Your task to perform on an android device: Search for "dell xps" on bestbuy, select the first entry, and add it to the cart. Image 0: 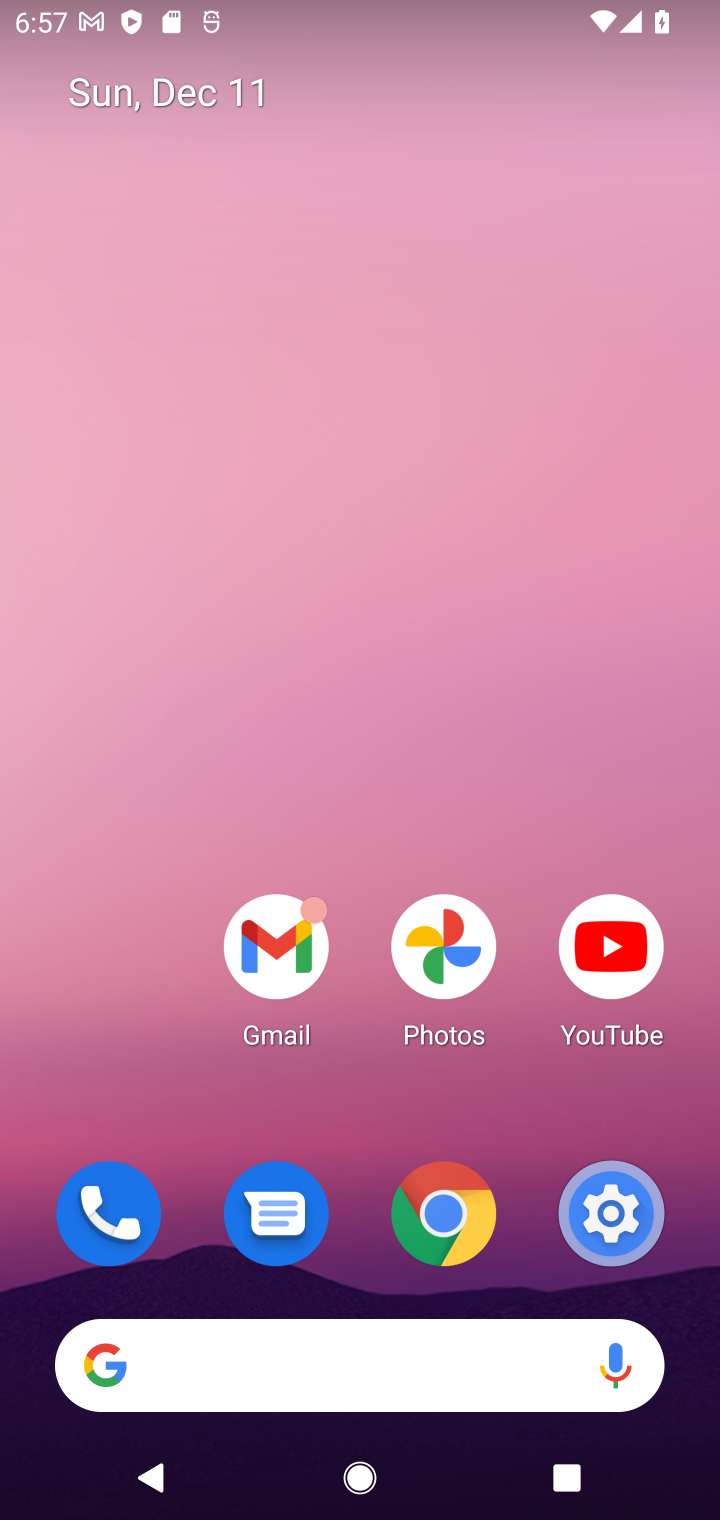
Step 0: click (396, 1368)
Your task to perform on an android device: Search for "dell xps" on bestbuy, select the first entry, and add it to the cart. Image 1: 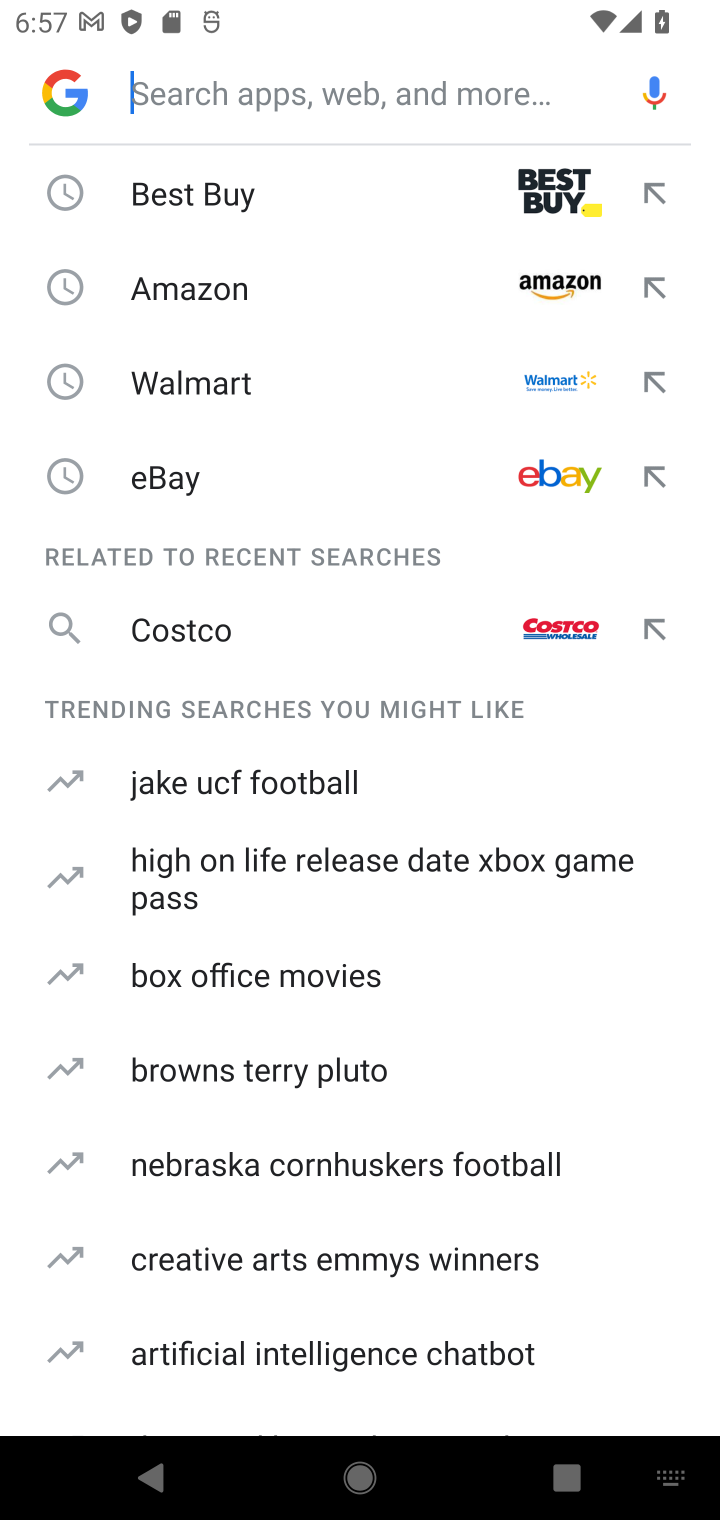
Step 1: type "bestbuy"
Your task to perform on an android device: Search for "dell xps" on bestbuy, select the first entry, and add it to the cart. Image 2: 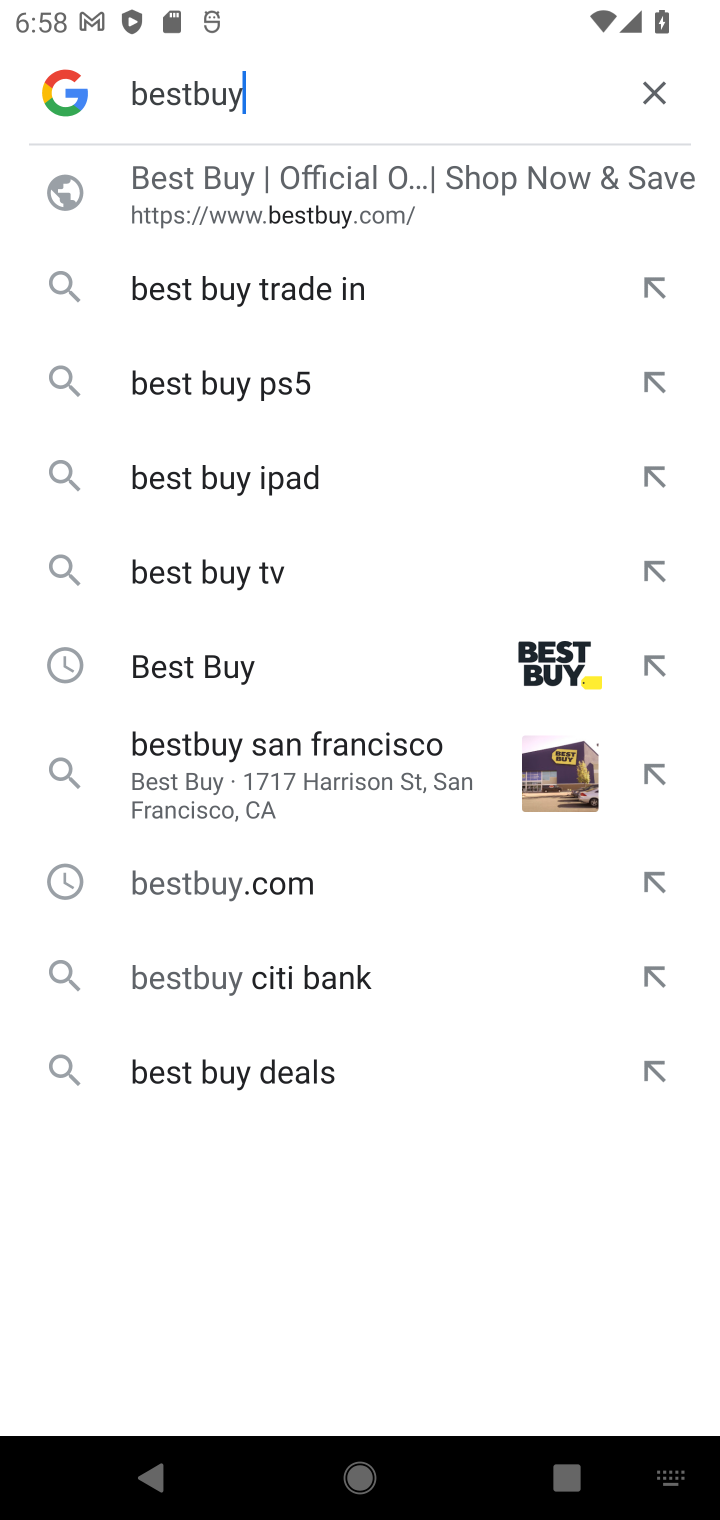
Step 2: click (140, 206)
Your task to perform on an android device: Search for "dell xps" on bestbuy, select the first entry, and add it to the cart. Image 3: 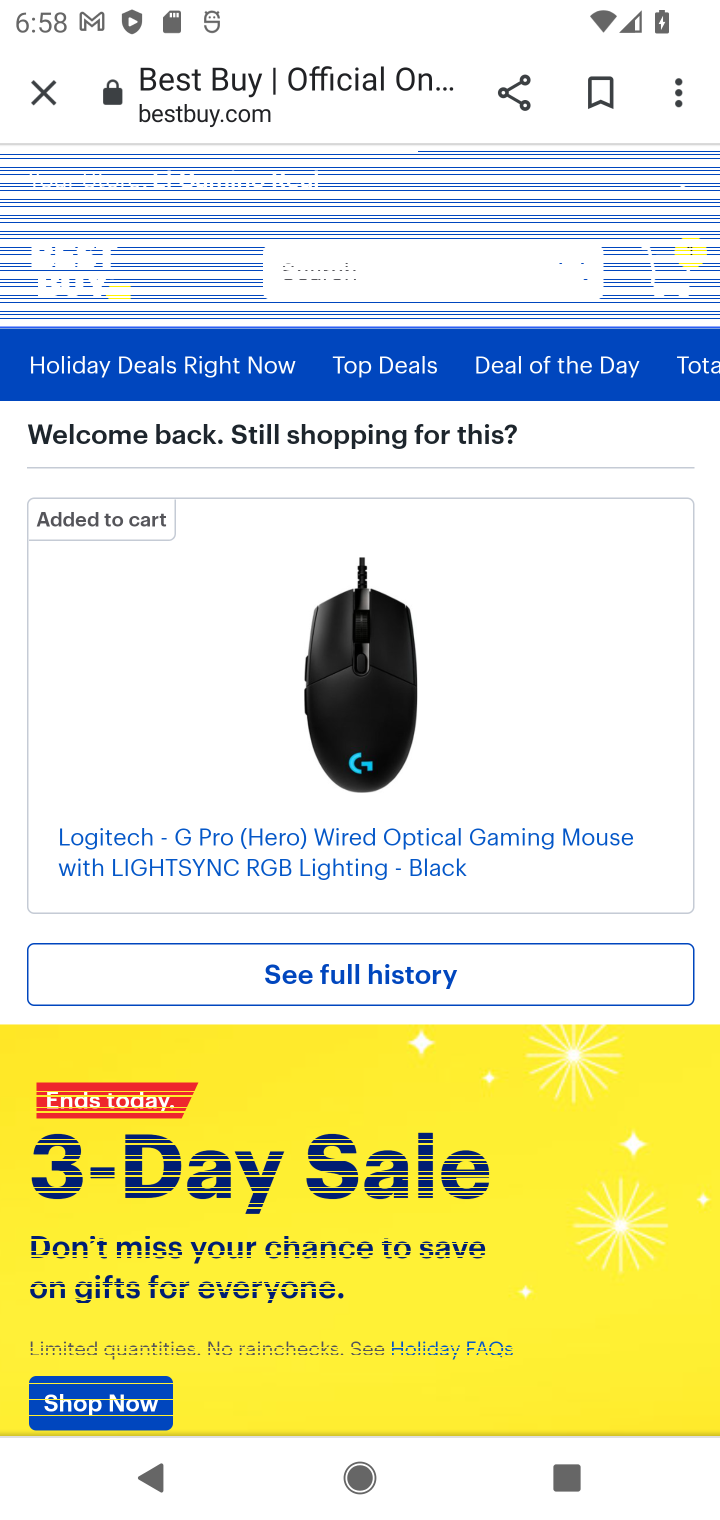
Step 3: click (436, 284)
Your task to perform on an android device: Search for "dell xps" on bestbuy, select the first entry, and add it to the cart. Image 4: 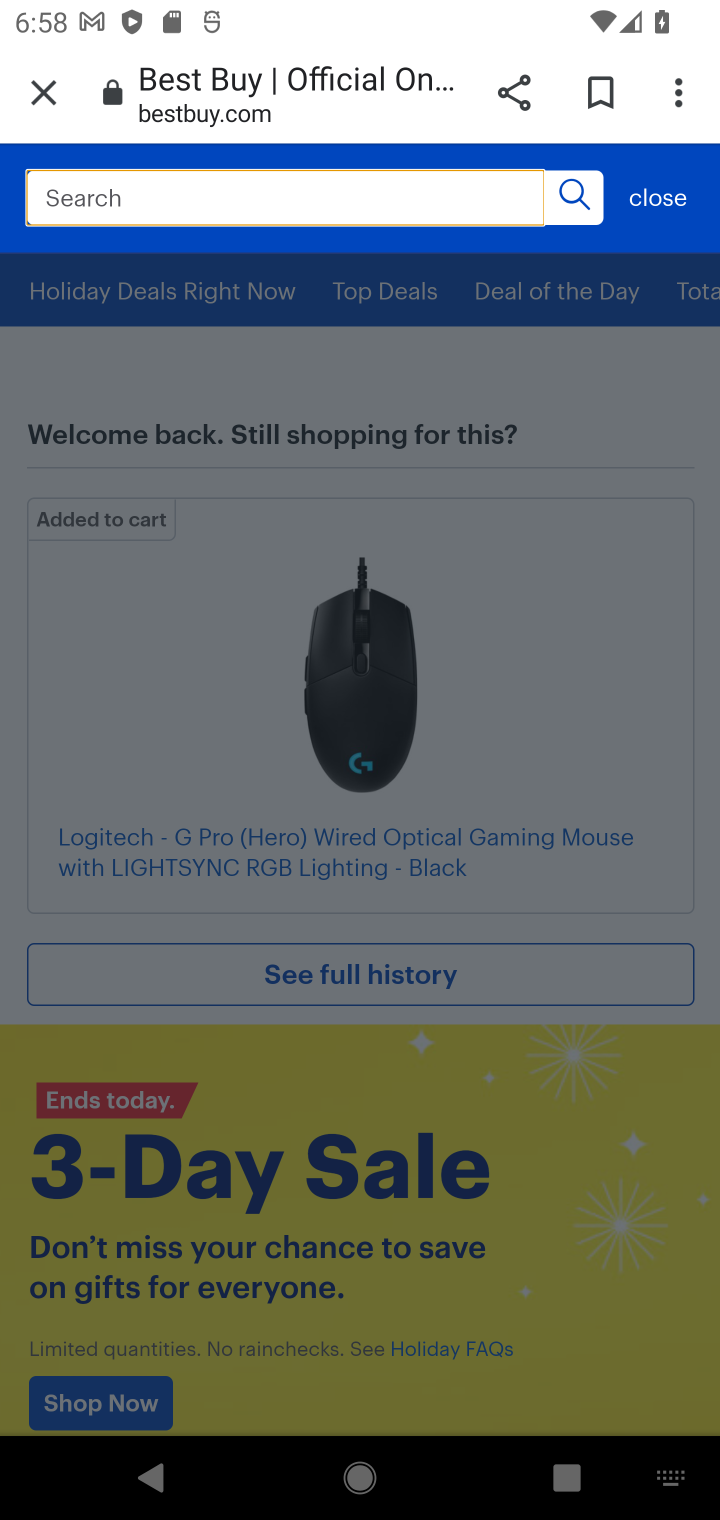
Step 4: type "dell xps"
Your task to perform on an android device: Search for "dell xps" on bestbuy, select the first entry, and add it to the cart. Image 5: 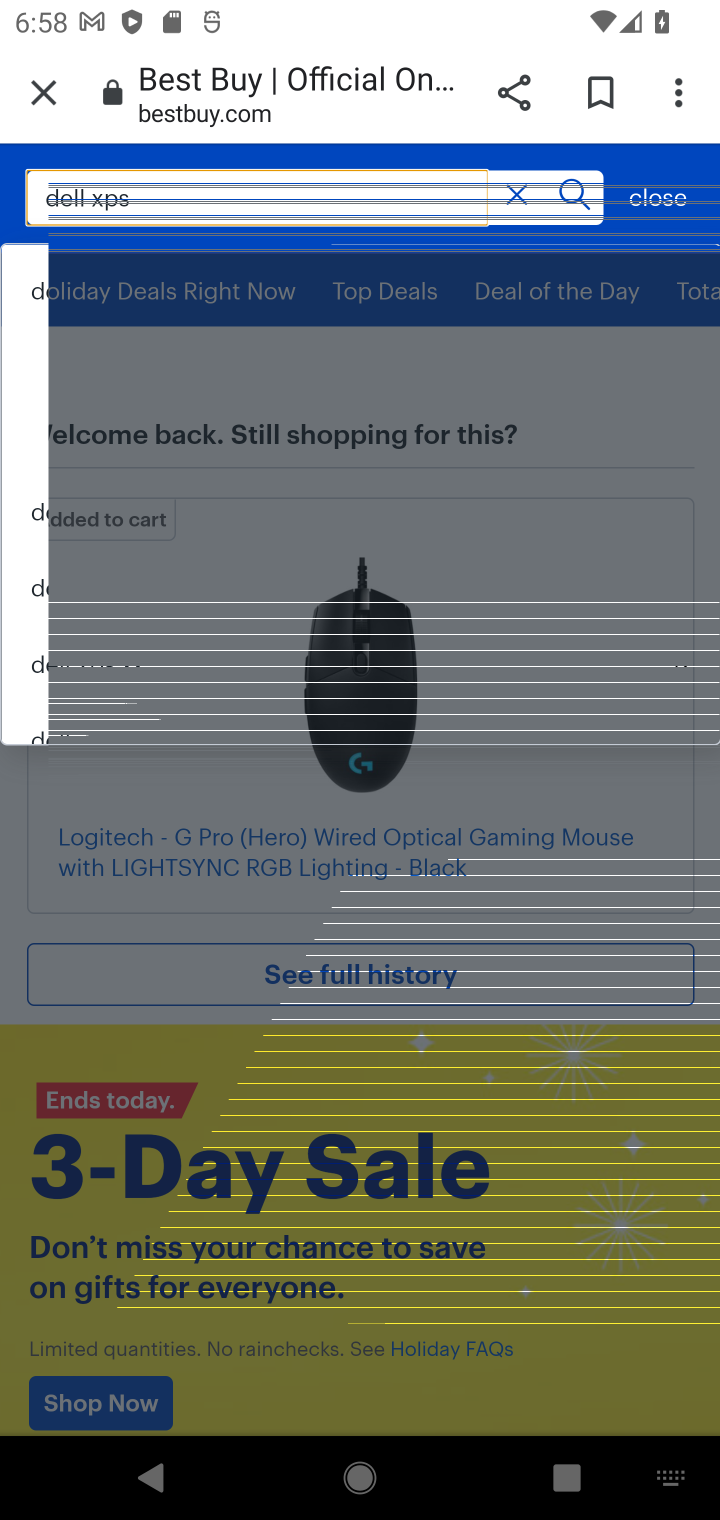
Step 5: click (38, 298)
Your task to perform on an android device: Search for "dell xps" on bestbuy, select the first entry, and add it to the cart. Image 6: 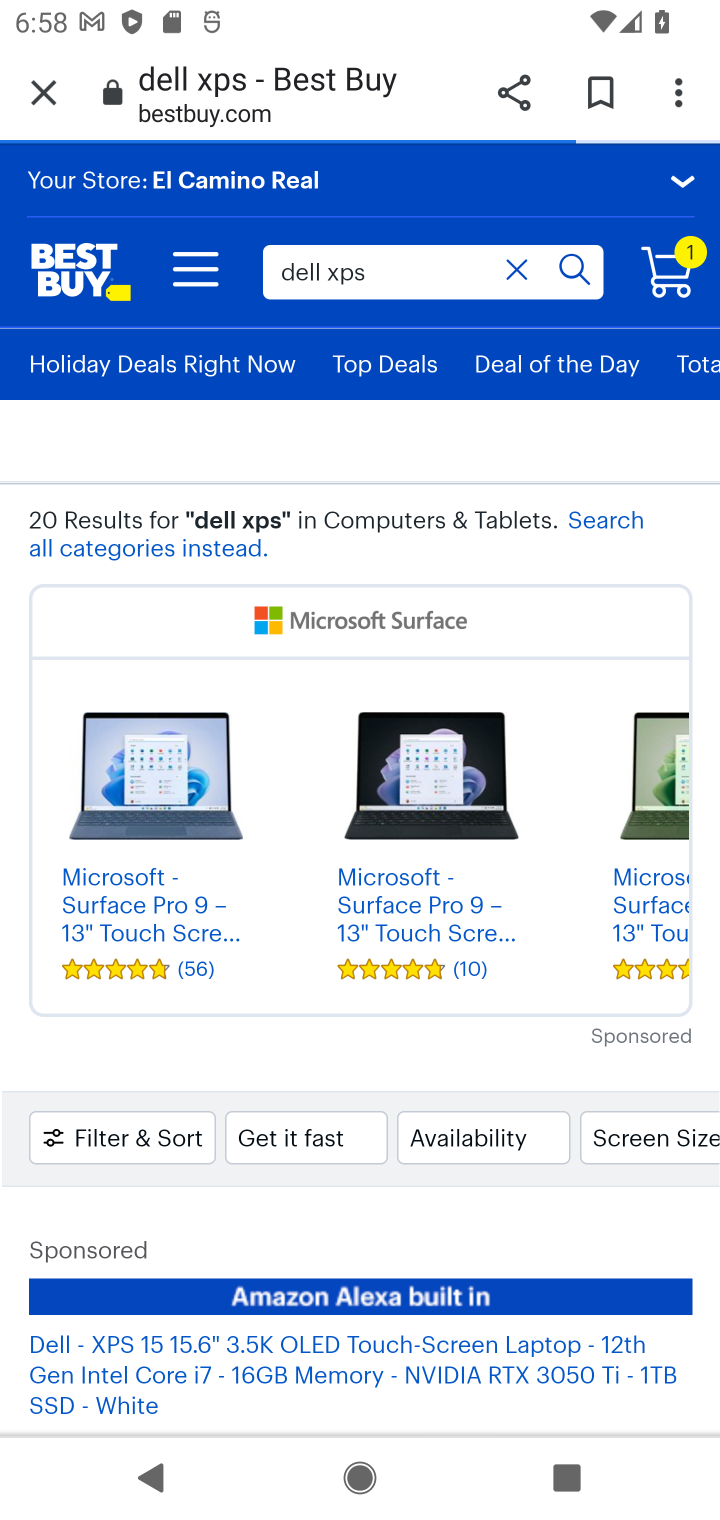
Step 6: click (146, 843)
Your task to perform on an android device: Search for "dell xps" on bestbuy, select the first entry, and add it to the cart. Image 7: 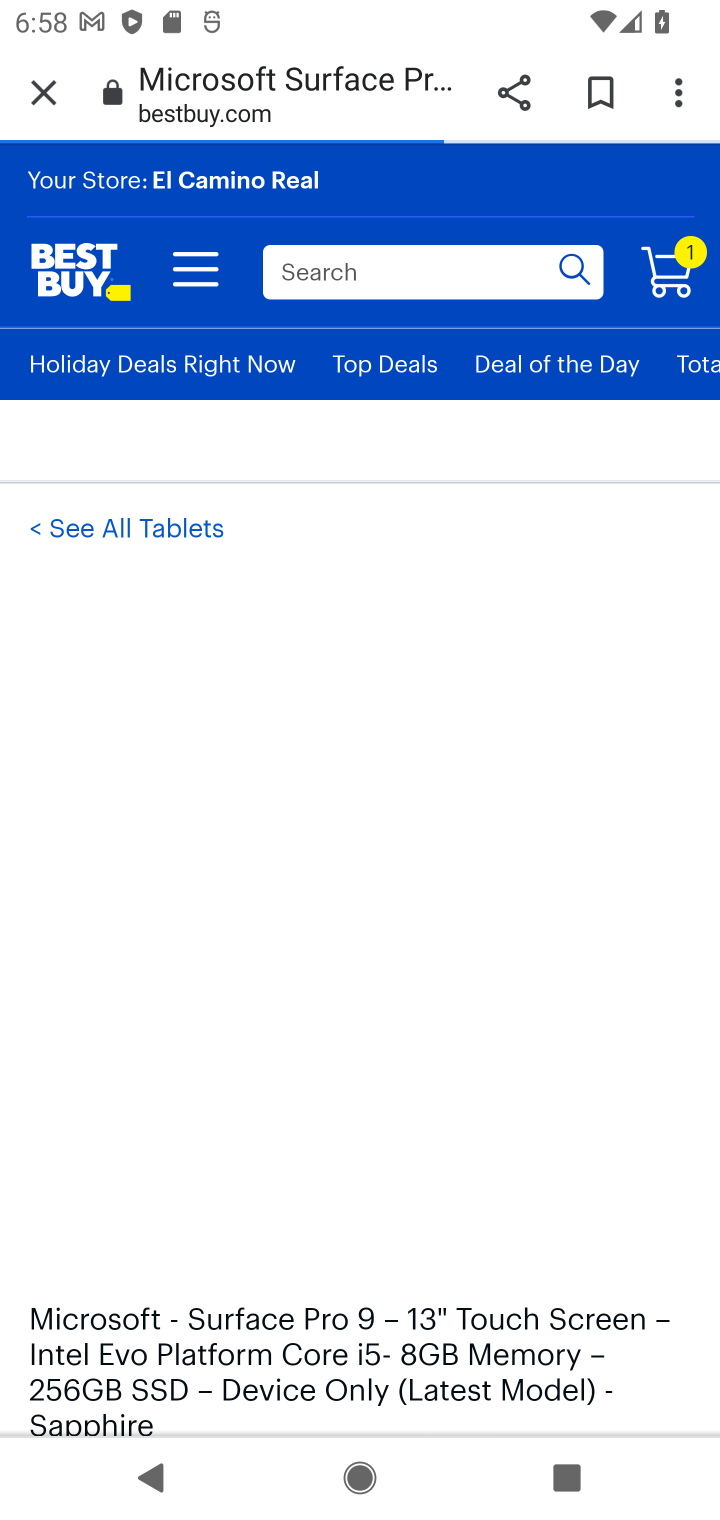
Step 7: task complete